Your task to perform on an android device: install app "Fetch Rewards" Image 0: 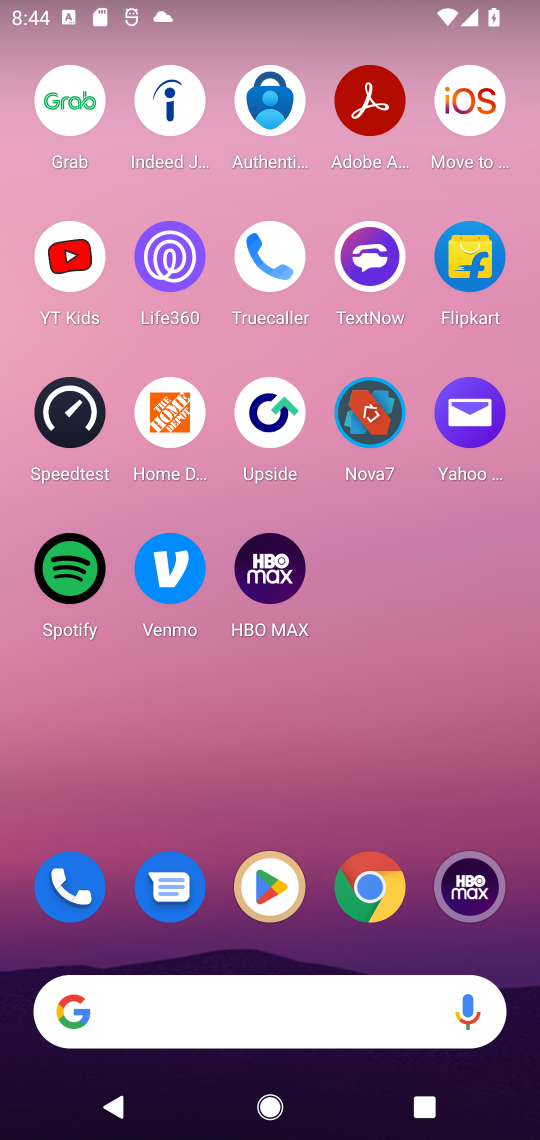
Step 0: click (259, 884)
Your task to perform on an android device: install app "Fetch Rewards" Image 1: 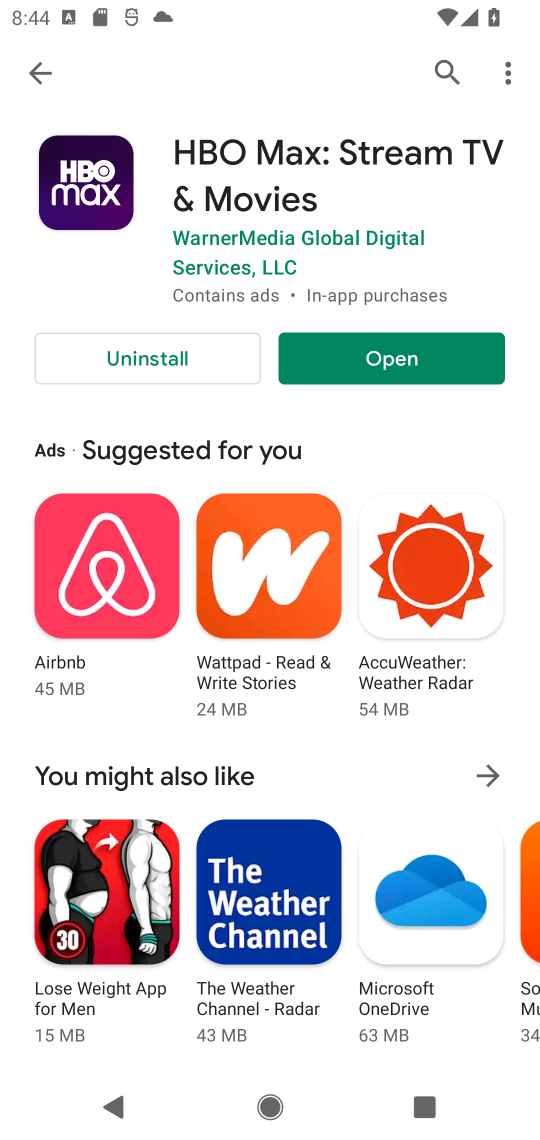
Step 1: click (446, 61)
Your task to perform on an android device: install app "Fetch Rewards" Image 2: 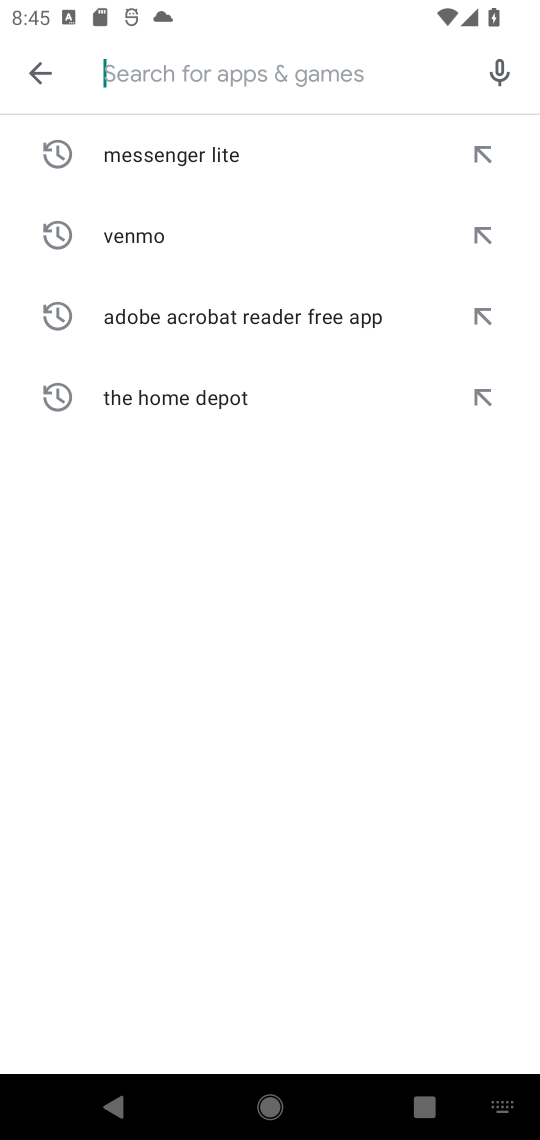
Step 2: type "Fetch Rewards"
Your task to perform on an android device: install app "Fetch Rewards" Image 3: 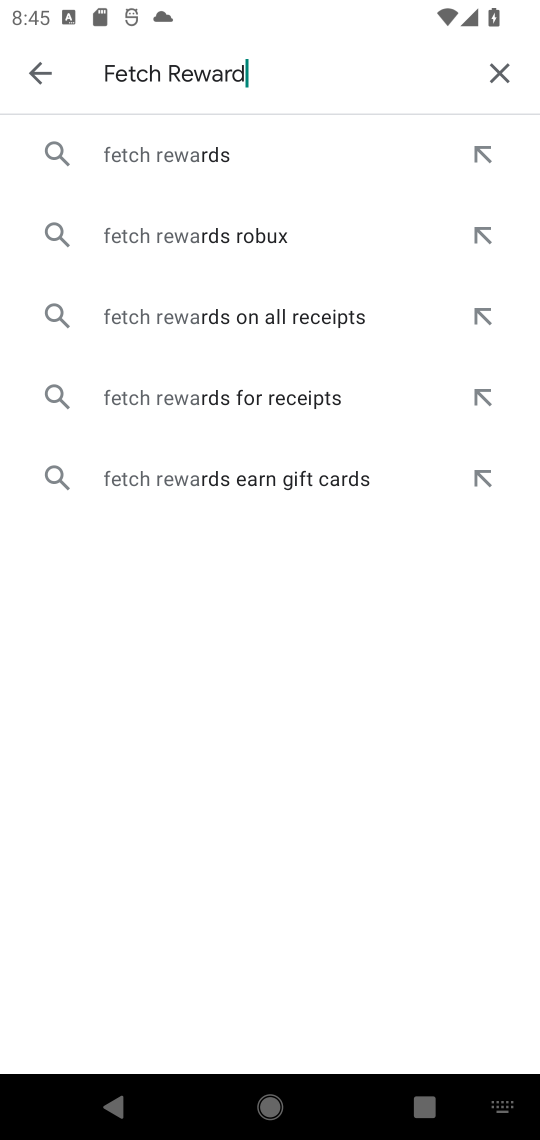
Step 3: type ""
Your task to perform on an android device: install app "Fetch Rewards" Image 4: 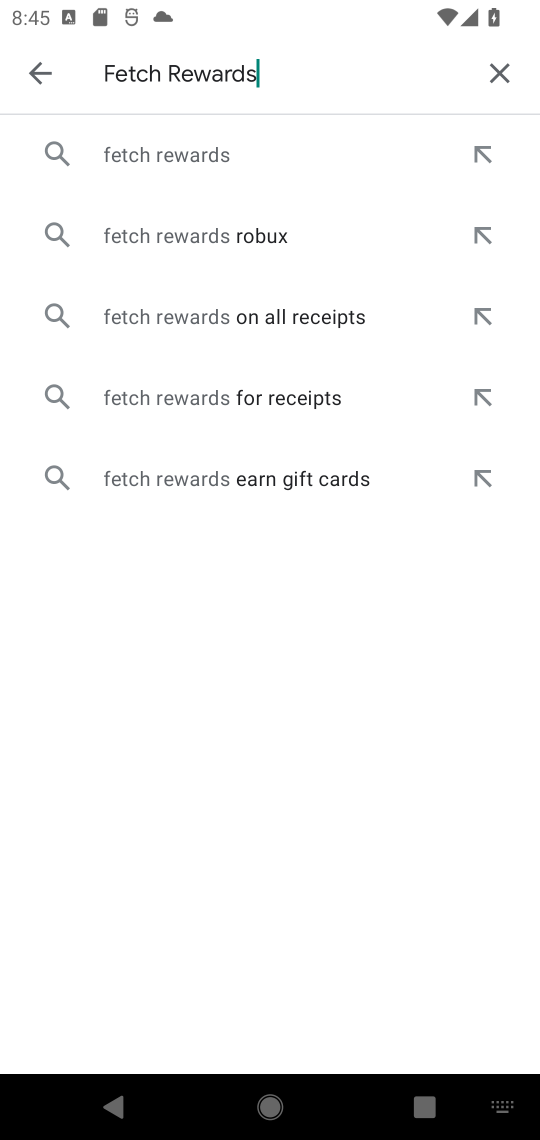
Step 4: click (166, 157)
Your task to perform on an android device: install app "Fetch Rewards" Image 5: 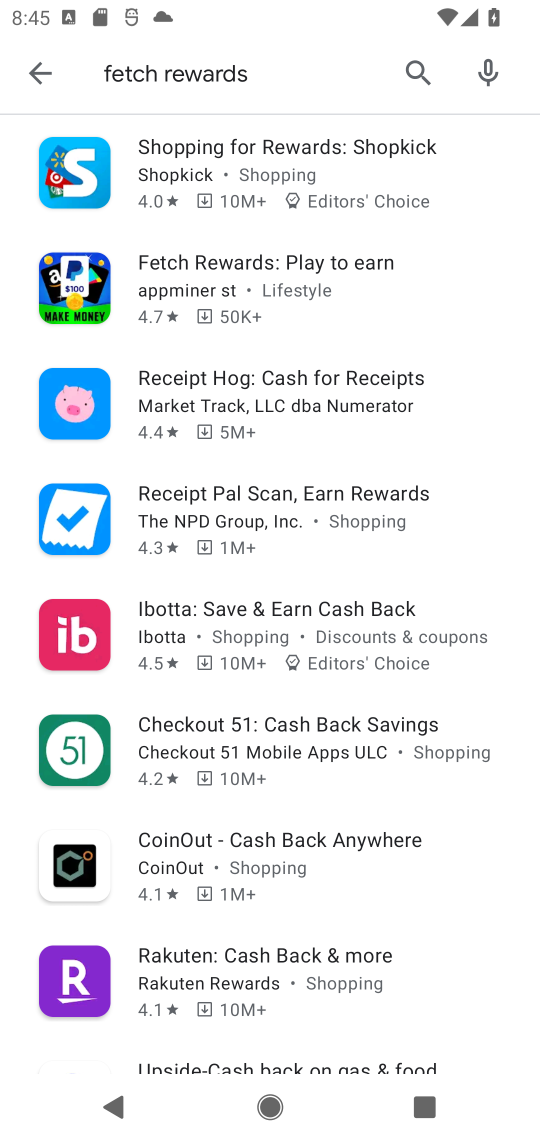
Step 5: task complete